Your task to perform on an android device: What's on my calendar today? Image 0: 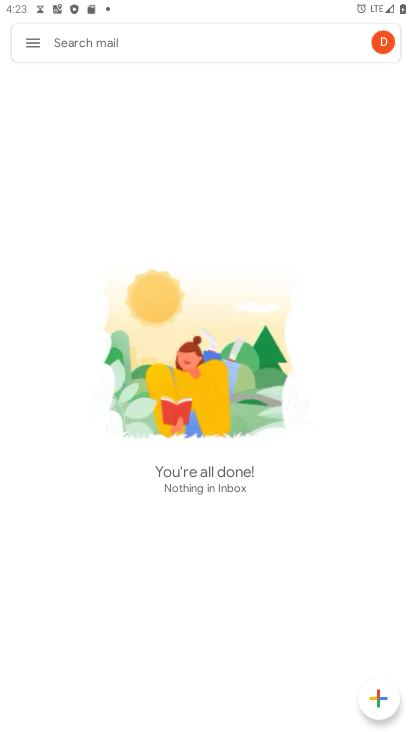
Step 0: press home button
Your task to perform on an android device: What's on my calendar today? Image 1: 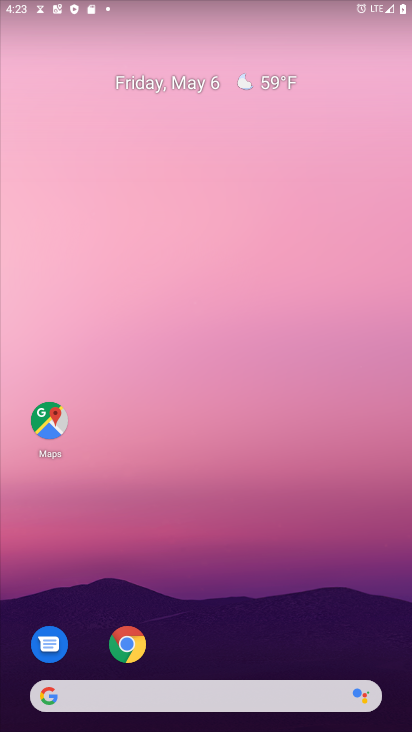
Step 1: drag from (203, 583) to (162, 50)
Your task to perform on an android device: What's on my calendar today? Image 2: 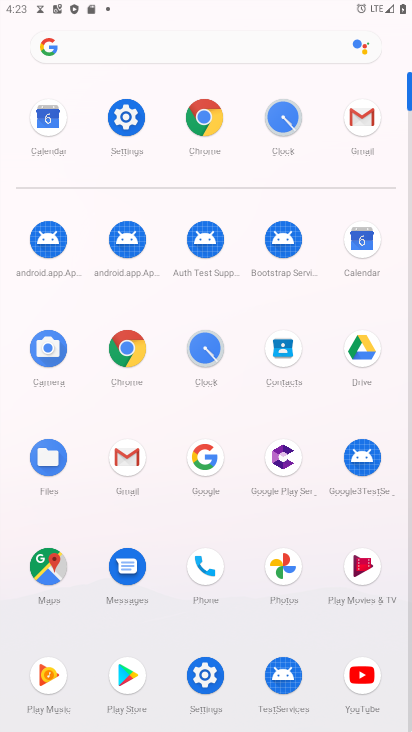
Step 2: click (363, 244)
Your task to perform on an android device: What's on my calendar today? Image 3: 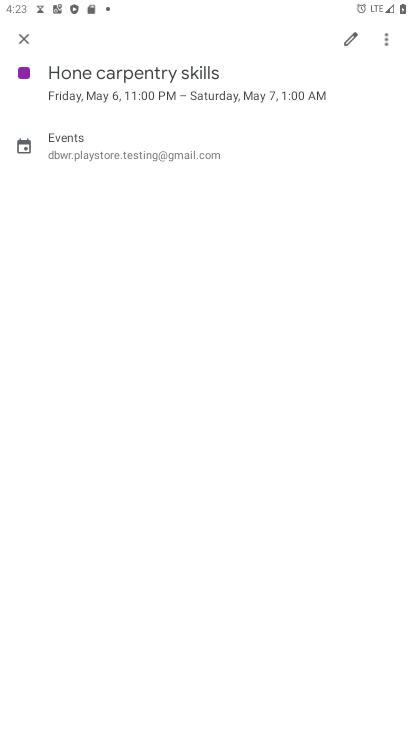
Step 3: press back button
Your task to perform on an android device: What's on my calendar today? Image 4: 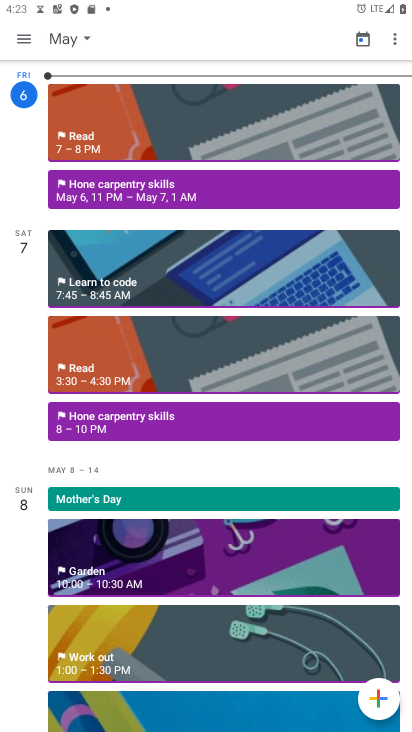
Step 4: click (141, 148)
Your task to perform on an android device: What's on my calendar today? Image 5: 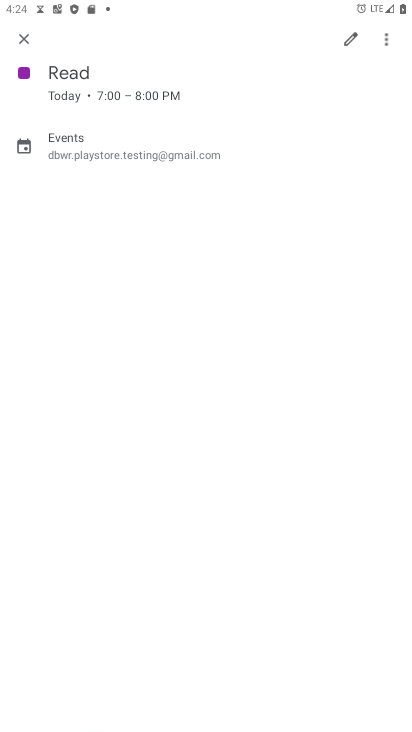
Step 5: task complete